Your task to perform on an android device: Open display settings Image 0: 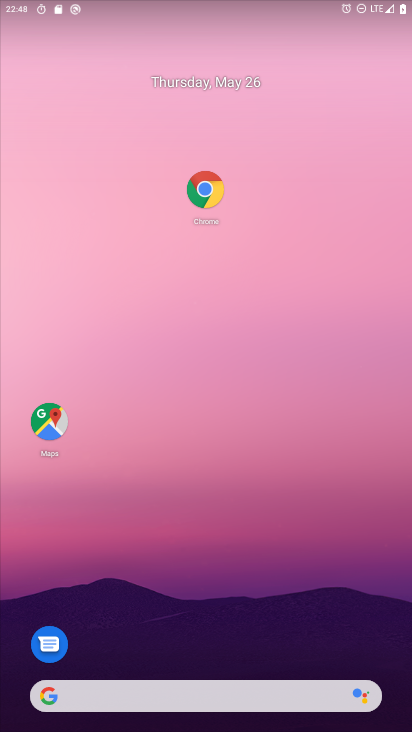
Step 0: drag from (215, 662) to (263, 105)
Your task to perform on an android device: Open display settings Image 1: 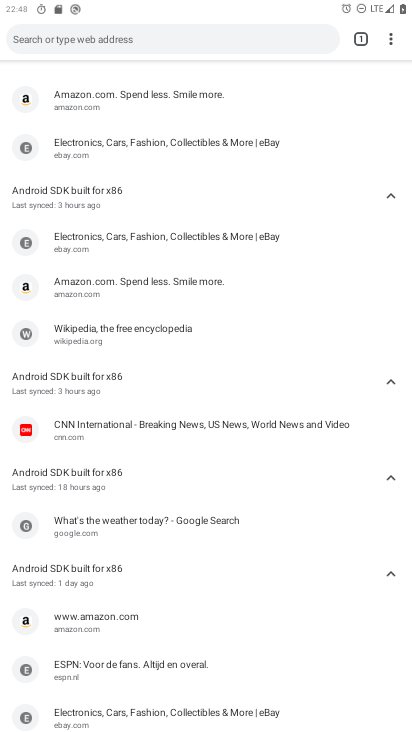
Step 1: drag from (296, 175) to (304, 562)
Your task to perform on an android device: Open display settings Image 2: 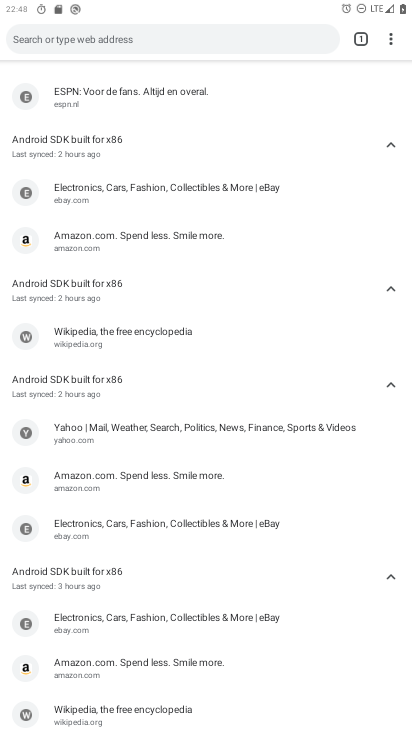
Step 2: press home button
Your task to perform on an android device: Open display settings Image 3: 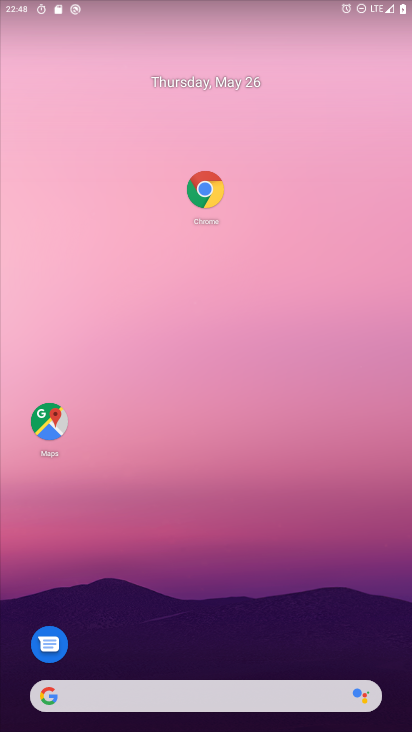
Step 3: drag from (164, 644) to (168, 437)
Your task to perform on an android device: Open display settings Image 4: 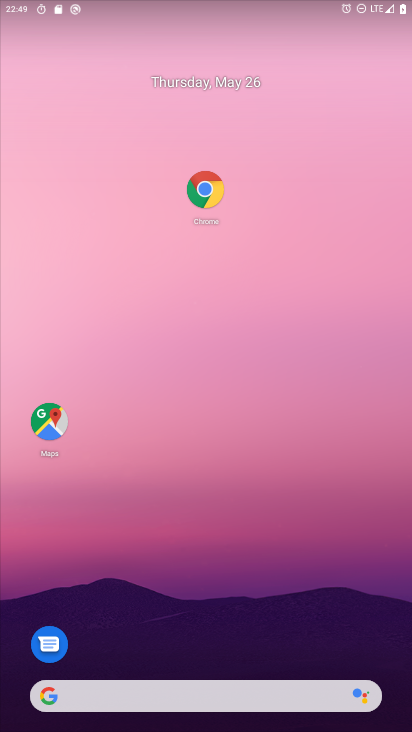
Step 4: drag from (195, 660) to (233, 145)
Your task to perform on an android device: Open display settings Image 5: 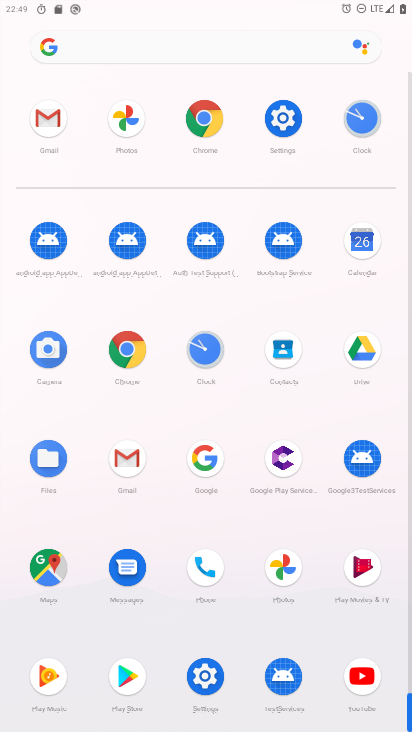
Step 5: click (284, 103)
Your task to perform on an android device: Open display settings Image 6: 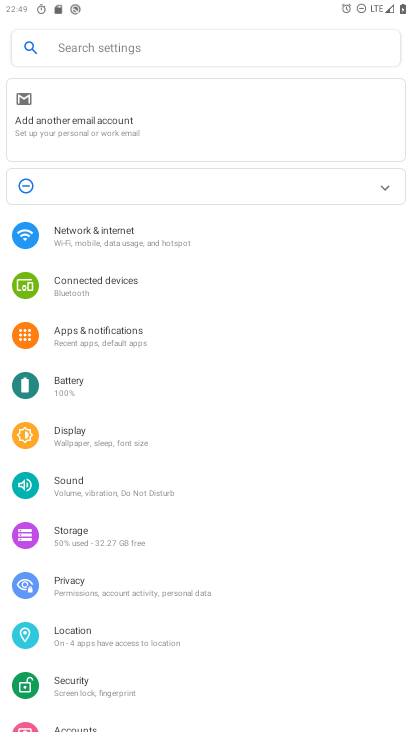
Step 6: click (102, 441)
Your task to perform on an android device: Open display settings Image 7: 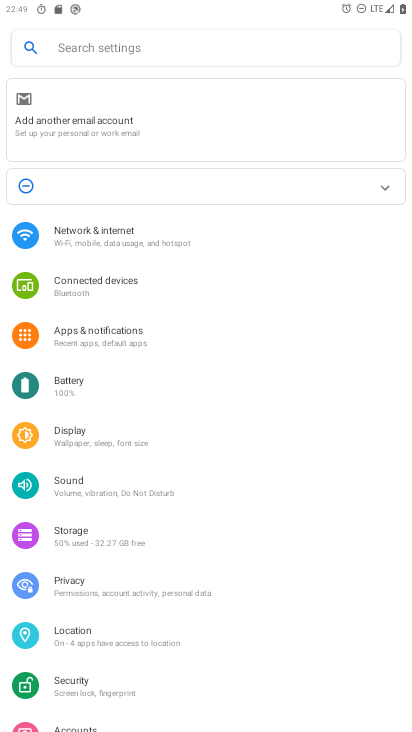
Step 7: click (102, 441)
Your task to perform on an android device: Open display settings Image 8: 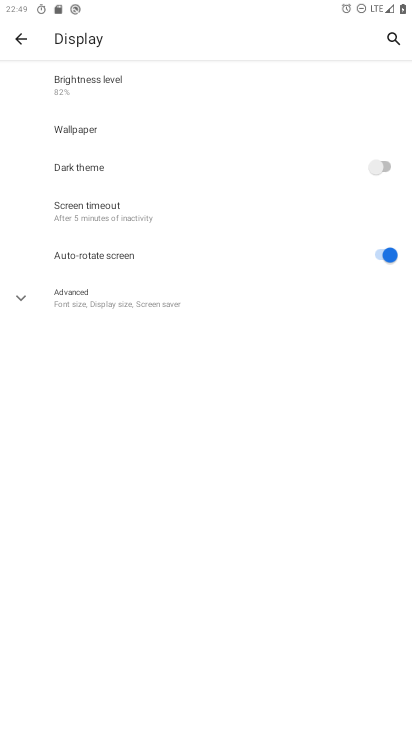
Step 8: task complete